Your task to perform on an android device: set the timer Image 0: 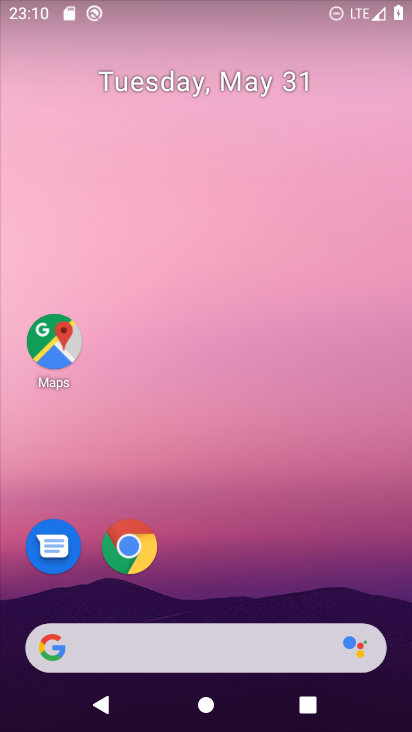
Step 0: drag from (399, 643) to (347, 202)
Your task to perform on an android device: set the timer Image 1: 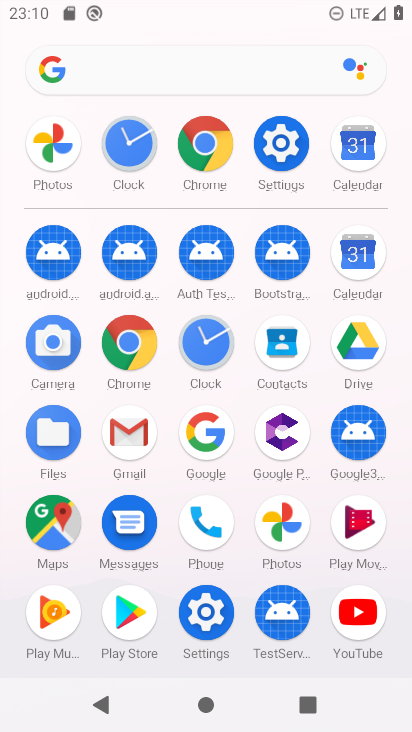
Step 1: click (272, 157)
Your task to perform on an android device: set the timer Image 2: 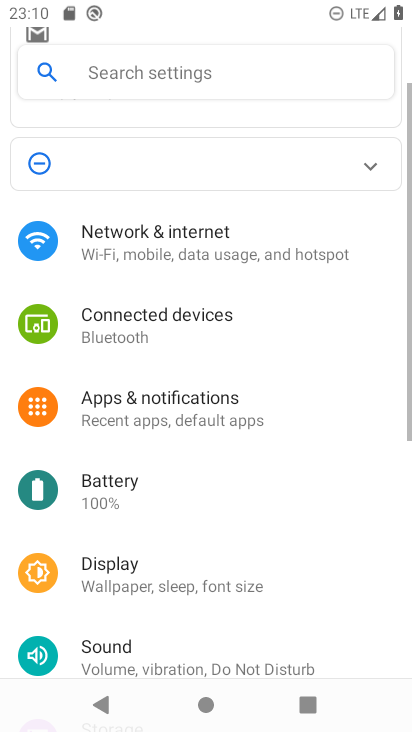
Step 2: press home button
Your task to perform on an android device: set the timer Image 3: 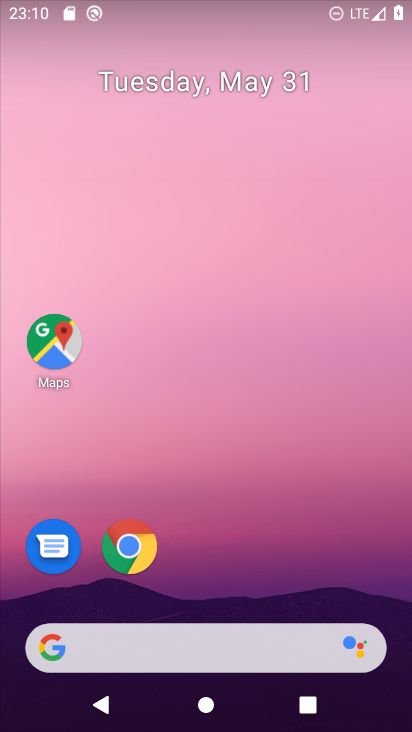
Step 3: drag from (394, 648) to (325, 82)
Your task to perform on an android device: set the timer Image 4: 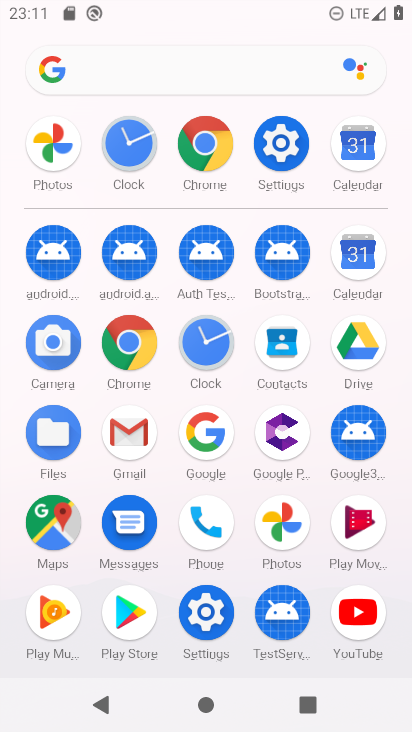
Step 4: click (226, 336)
Your task to perform on an android device: set the timer Image 5: 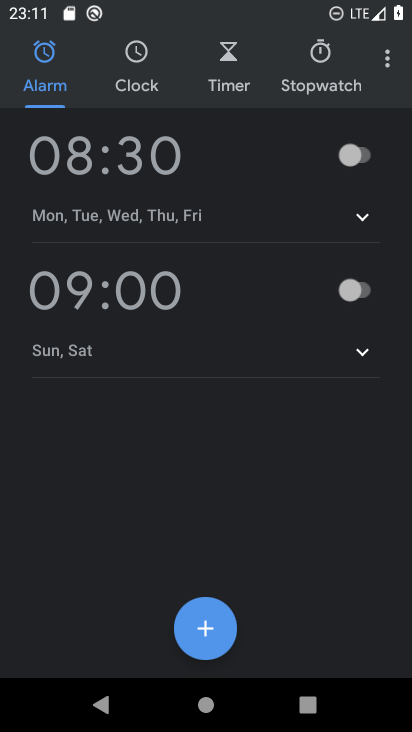
Step 5: click (227, 85)
Your task to perform on an android device: set the timer Image 6: 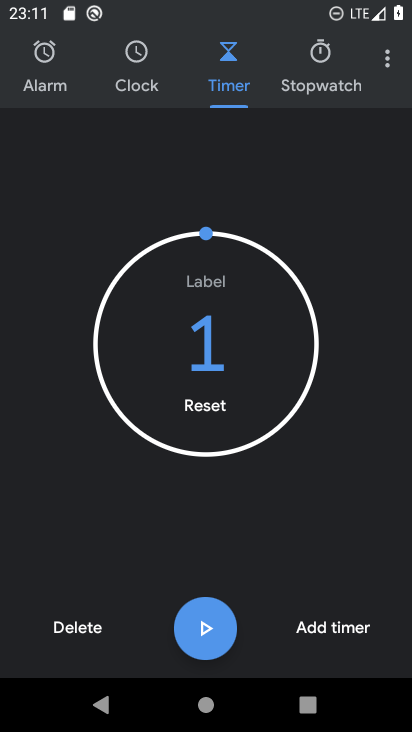
Step 6: click (199, 357)
Your task to perform on an android device: set the timer Image 7: 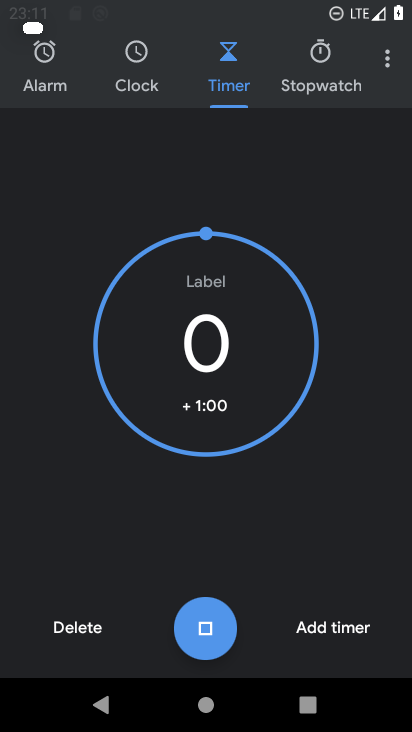
Step 7: click (207, 406)
Your task to perform on an android device: set the timer Image 8: 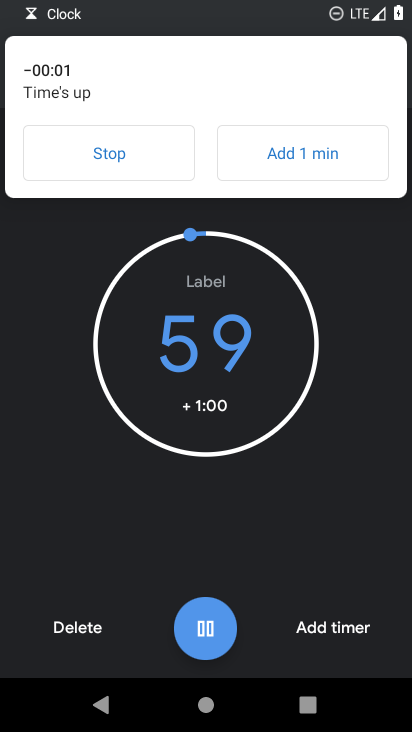
Step 8: click (139, 166)
Your task to perform on an android device: set the timer Image 9: 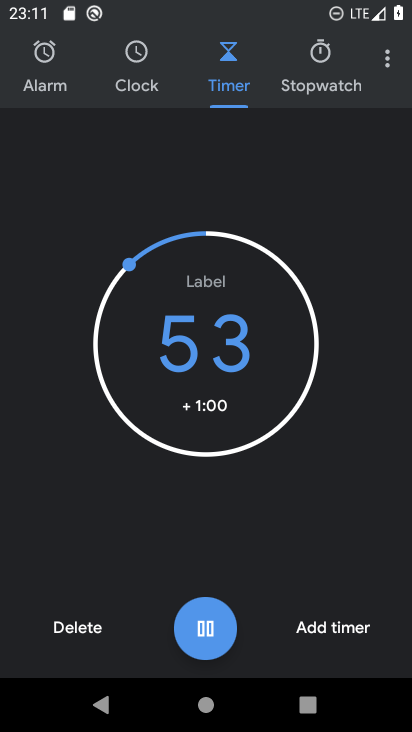
Step 9: task complete